Your task to perform on an android device: turn off location history Image 0: 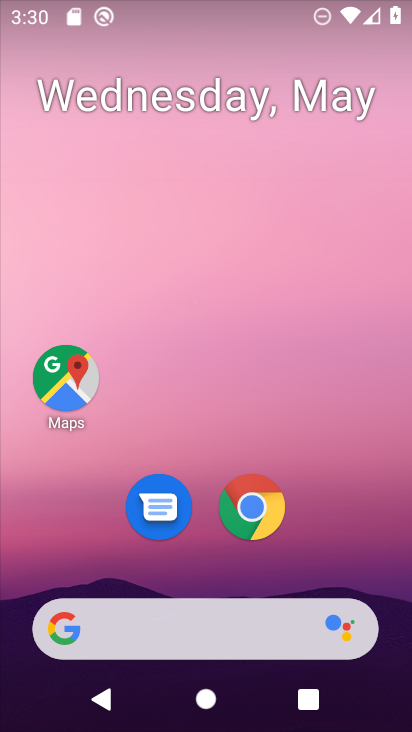
Step 0: drag from (200, 571) to (215, 75)
Your task to perform on an android device: turn off location history Image 1: 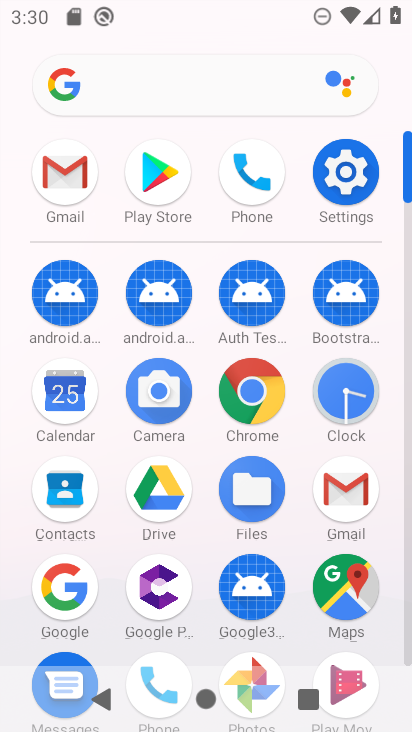
Step 1: click (364, 183)
Your task to perform on an android device: turn off location history Image 2: 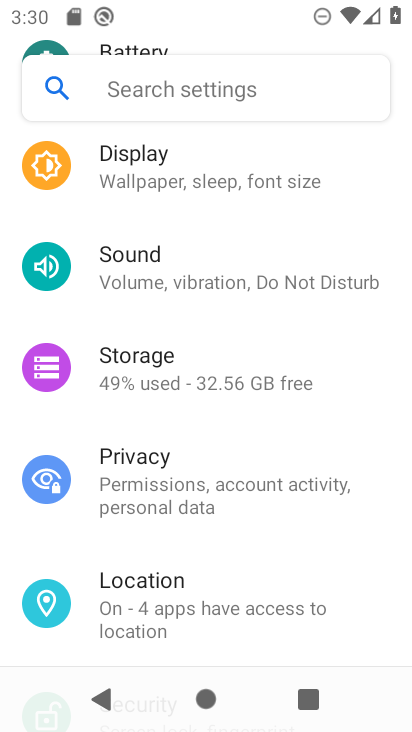
Step 2: click (162, 570)
Your task to perform on an android device: turn off location history Image 3: 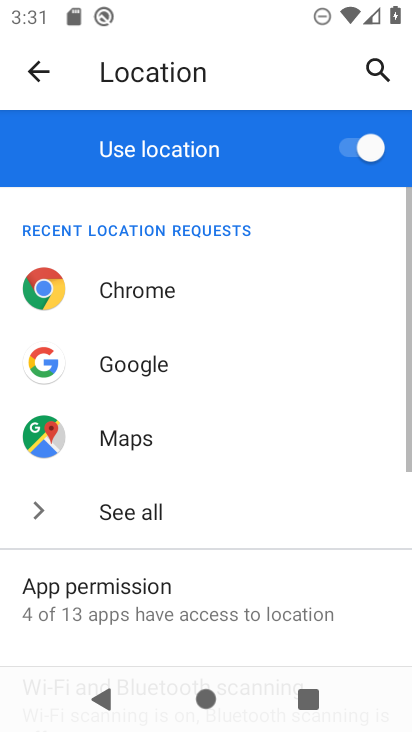
Step 3: drag from (152, 419) to (182, 228)
Your task to perform on an android device: turn off location history Image 4: 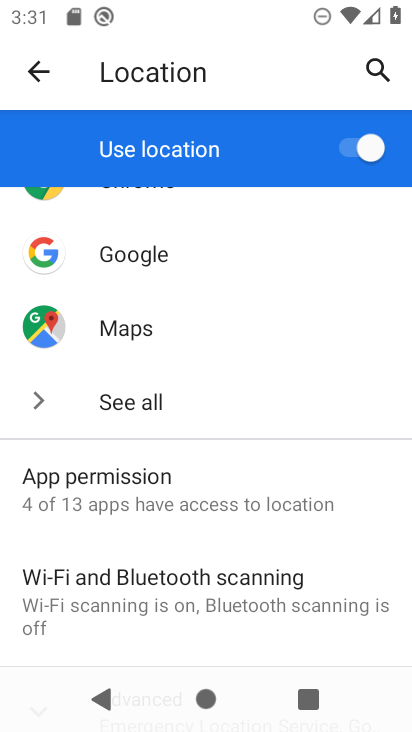
Step 4: drag from (210, 456) to (242, 249)
Your task to perform on an android device: turn off location history Image 5: 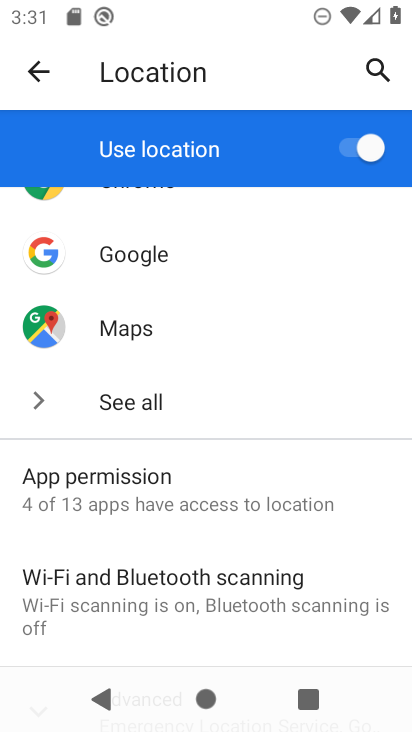
Step 5: drag from (184, 575) to (236, 383)
Your task to perform on an android device: turn off location history Image 6: 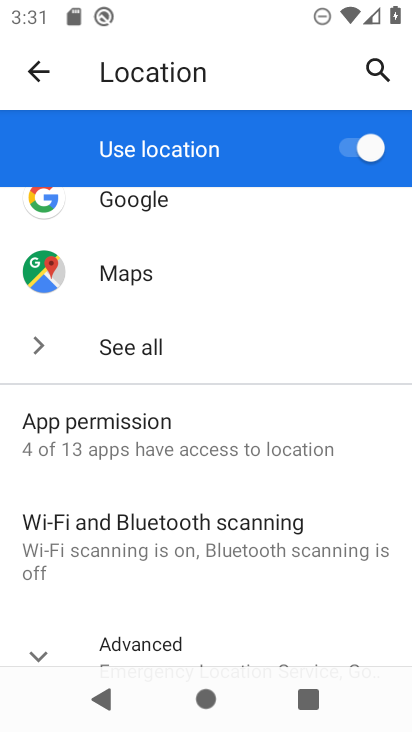
Step 6: drag from (184, 611) to (271, 331)
Your task to perform on an android device: turn off location history Image 7: 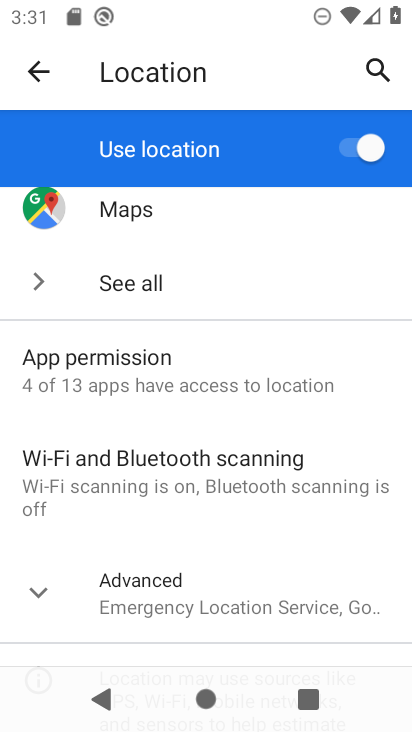
Step 7: click (156, 596)
Your task to perform on an android device: turn off location history Image 8: 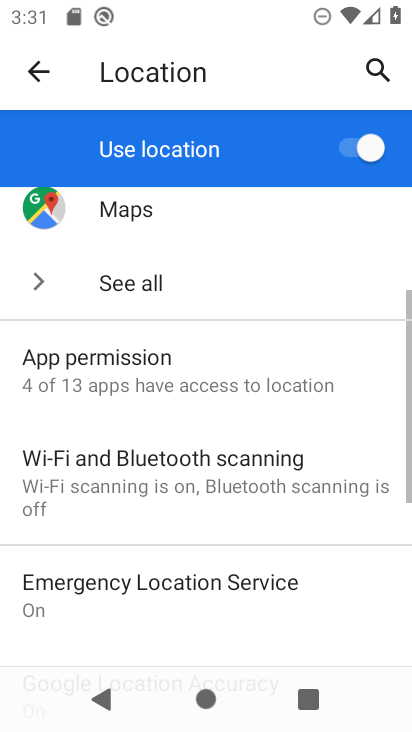
Step 8: drag from (187, 579) to (225, 417)
Your task to perform on an android device: turn off location history Image 9: 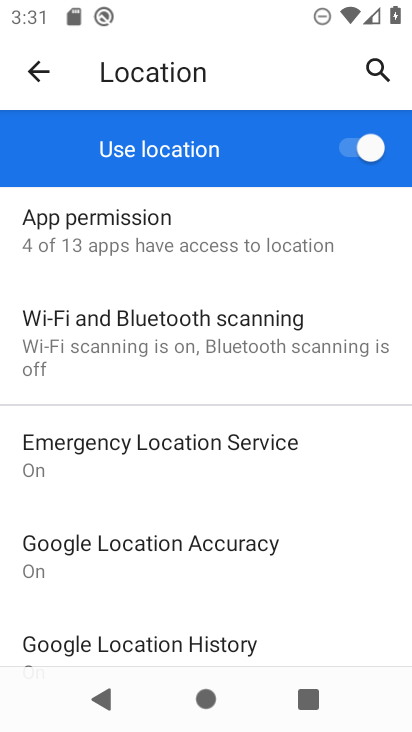
Step 9: drag from (203, 606) to (267, 367)
Your task to perform on an android device: turn off location history Image 10: 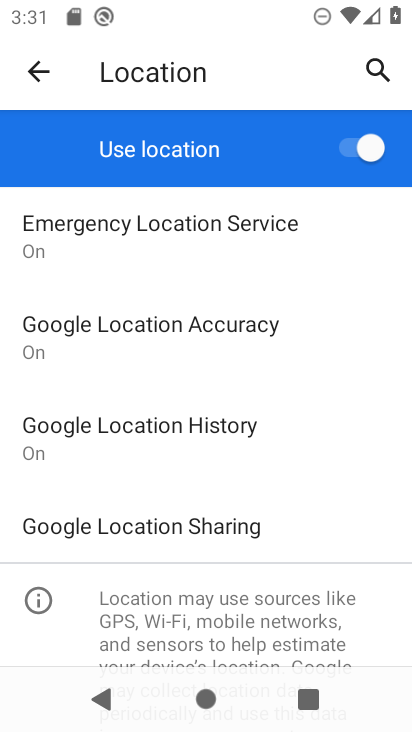
Step 10: click (201, 444)
Your task to perform on an android device: turn off location history Image 11: 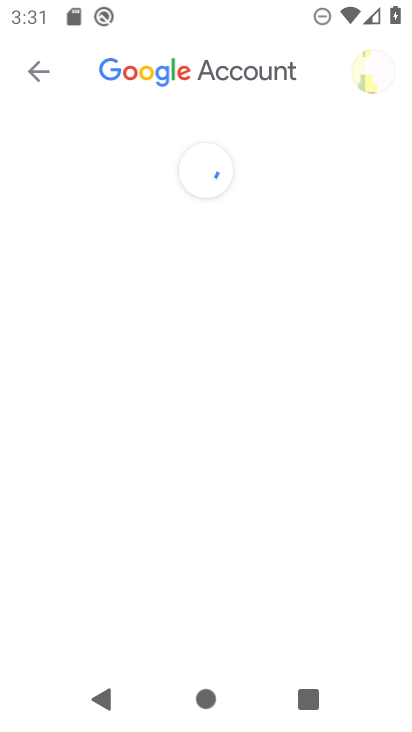
Step 11: task complete